Your task to perform on an android device: Open maps Image 0: 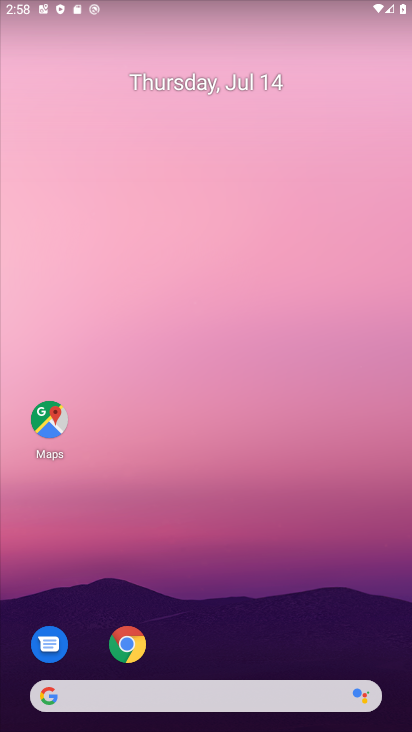
Step 0: drag from (198, 682) to (238, 224)
Your task to perform on an android device: Open maps Image 1: 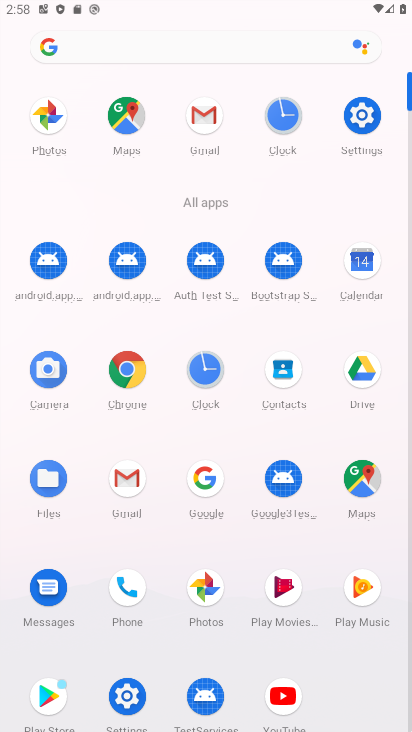
Step 1: click (361, 483)
Your task to perform on an android device: Open maps Image 2: 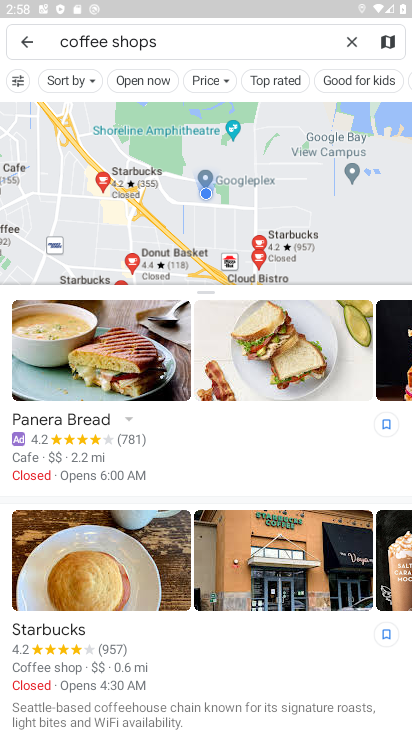
Step 2: task complete